Your task to perform on an android device: Go to ESPN.com Image 0: 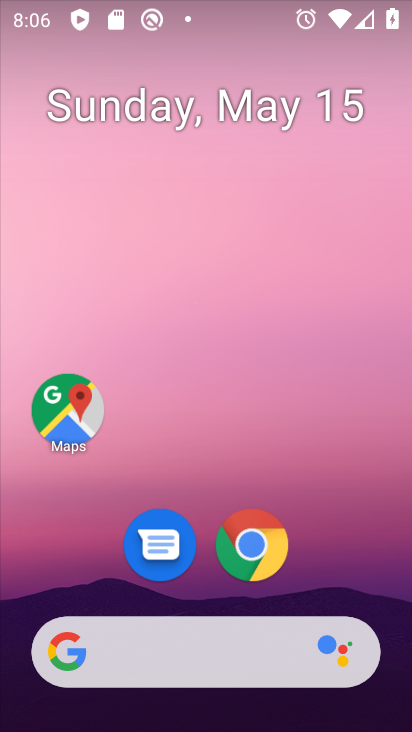
Step 0: drag from (355, 573) to (392, 0)
Your task to perform on an android device: Go to ESPN.com Image 1: 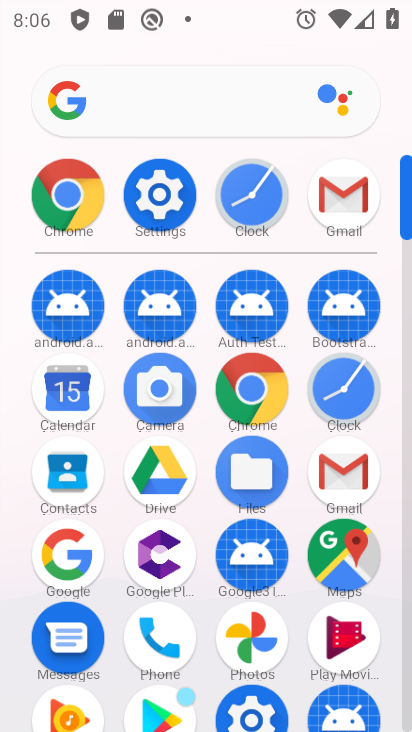
Step 1: click (265, 399)
Your task to perform on an android device: Go to ESPN.com Image 2: 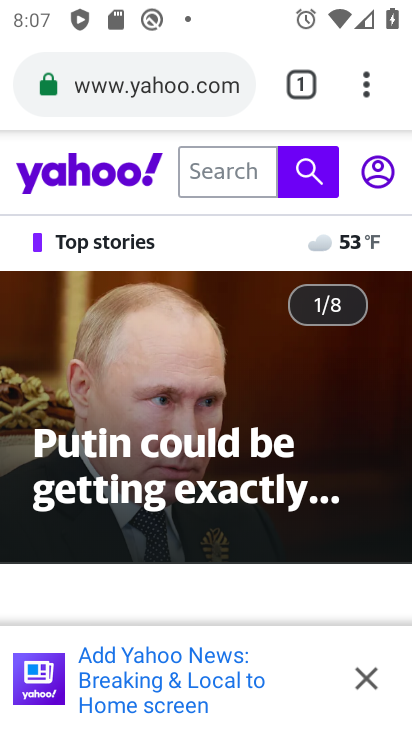
Step 2: click (217, 88)
Your task to perform on an android device: Go to ESPN.com Image 3: 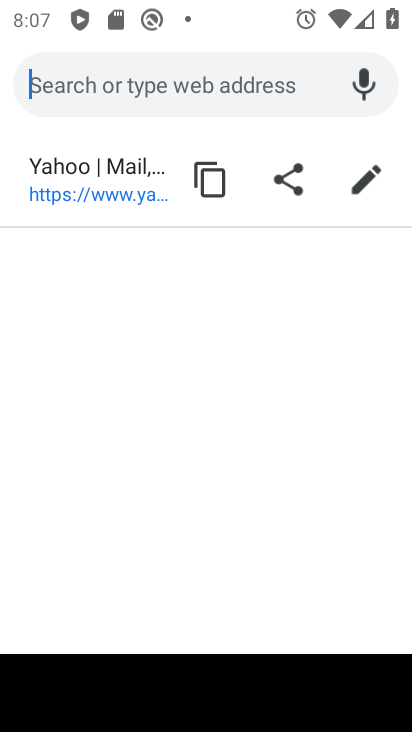
Step 3: type "espn"
Your task to perform on an android device: Go to ESPN.com Image 4: 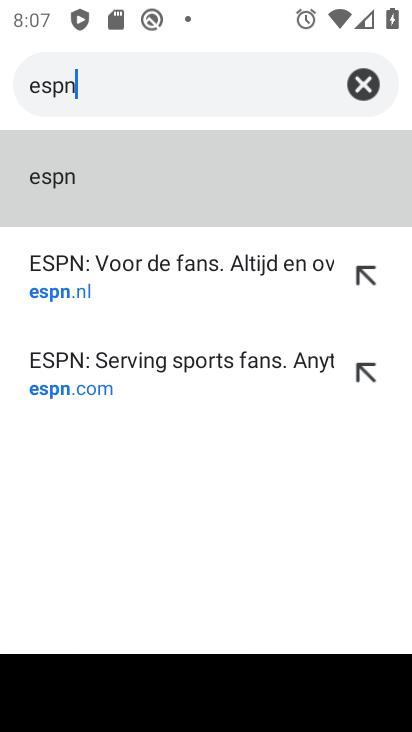
Step 4: click (123, 200)
Your task to perform on an android device: Go to ESPN.com Image 5: 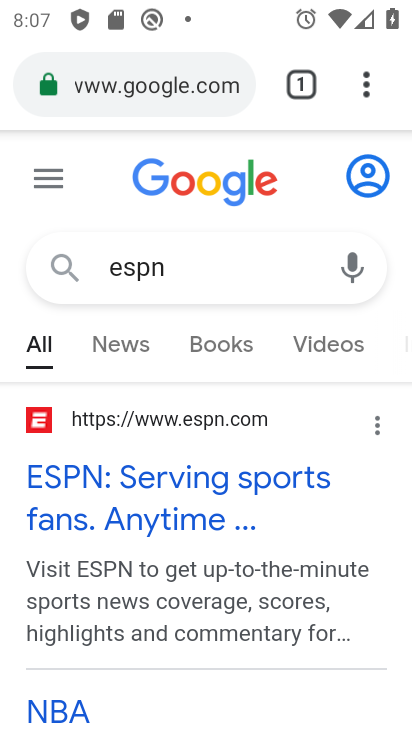
Step 5: task complete